Your task to perform on an android device: Open Google Chrome and click the shortcut for Amazon.com Image 0: 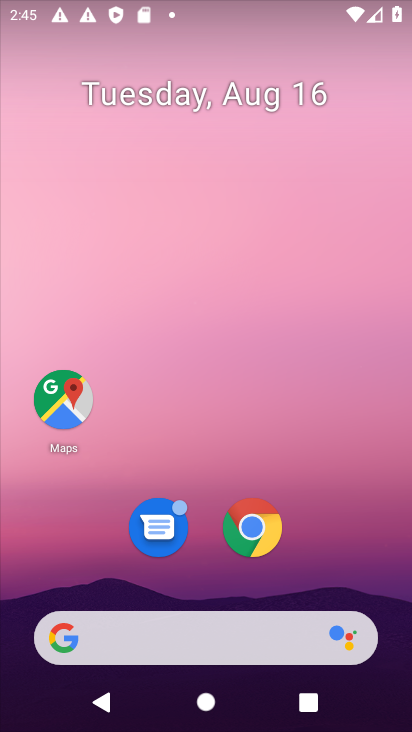
Step 0: press home button
Your task to perform on an android device: Open Google Chrome and click the shortcut for Amazon.com Image 1: 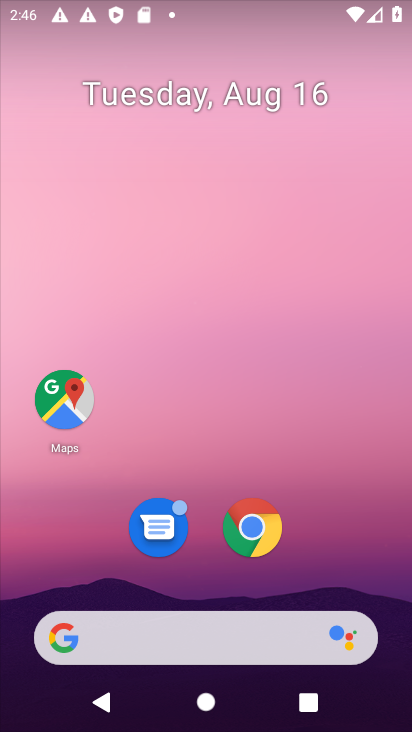
Step 1: click (251, 527)
Your task to perform on an android device: Open Google Chrome and click the shortcut for Amazon.com Image 2: 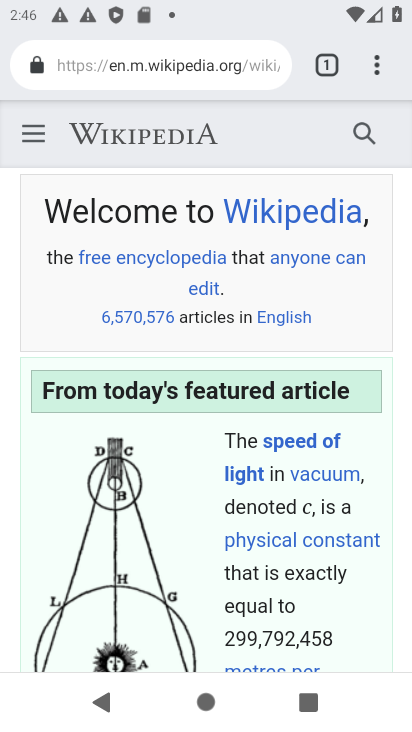
Step 2: click (326, 67)
Your task to perform on an android device: Open Google Chrome and click the shortcut for Amazon.com Image 3: 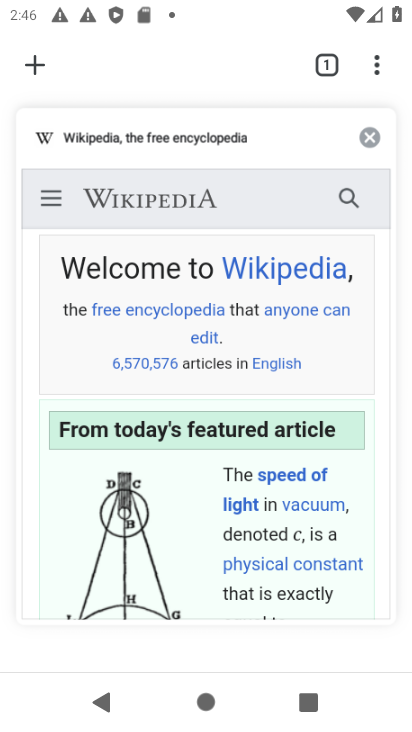
Step 3: click (33, 65)
Your task to perform on an android device: Open Google Chrome and click the shortcut for Amazon.com Image 4: 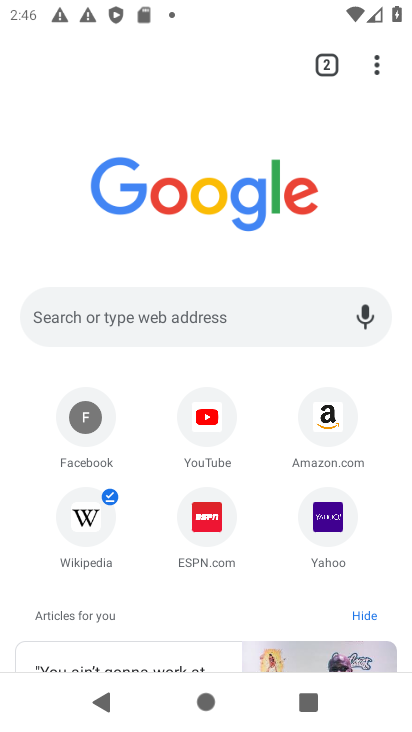
Step 4: click (323, 407)
Your task to perform on an android device: Open Google Chrome and click the shortcut for Amazon.com Image 5: 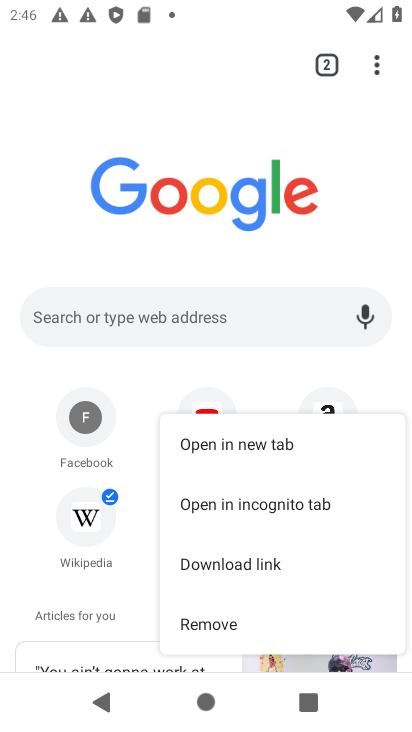
Step 5: click (374, 376)
Your task to perform on an android device: Open Google Chrome and click the shortcut for Amazon.com Image 6: 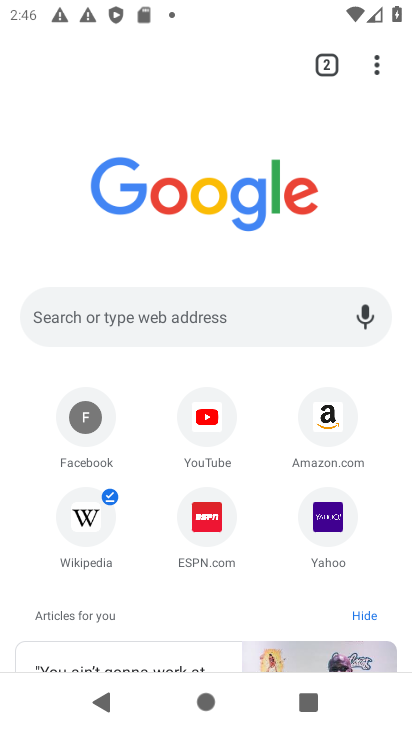
Step 6: click (324, 410)
Your task to perform on an android device: Open Google Chrome and click the shortcut for Amazon.com Image 7: 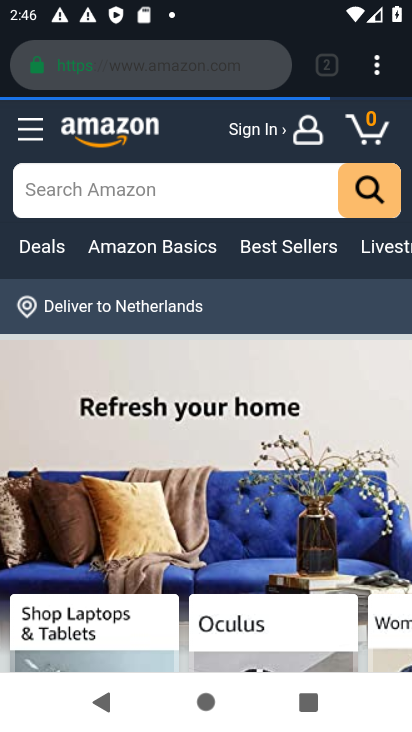
Step 7: task complete